Your task to perform on an android device: Search for Mexican restaurants on Maps Image 0: 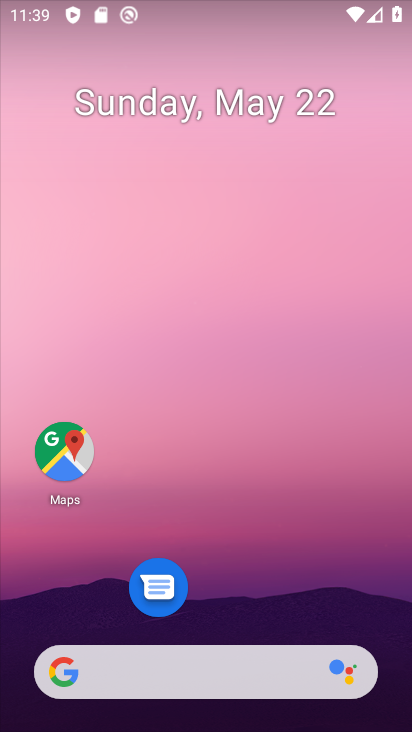
Step 0: drag from (225, 632) to (199, 177)
Your task to perform on an android device: Search for Mexican restaurants on Maps Image 1: 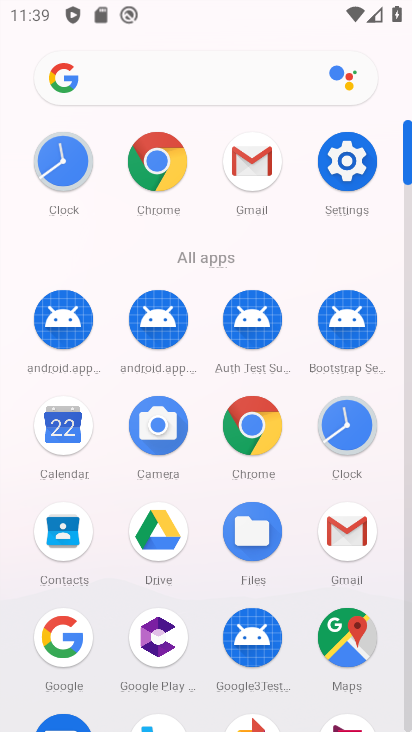
Step 1: click (346, 613)
Your task to perform on an android device: Search for Mexican restaurants on Maps Image 2: 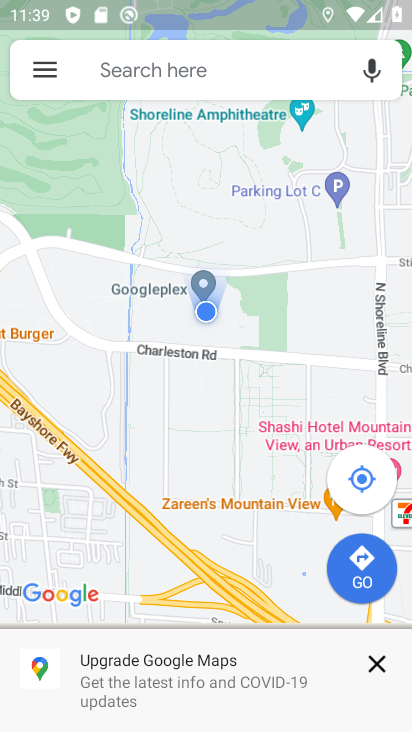
Step 2: click (151, 66)
Your task to perform on an android device: Search for Mexican restaurants on Maps Image 3: 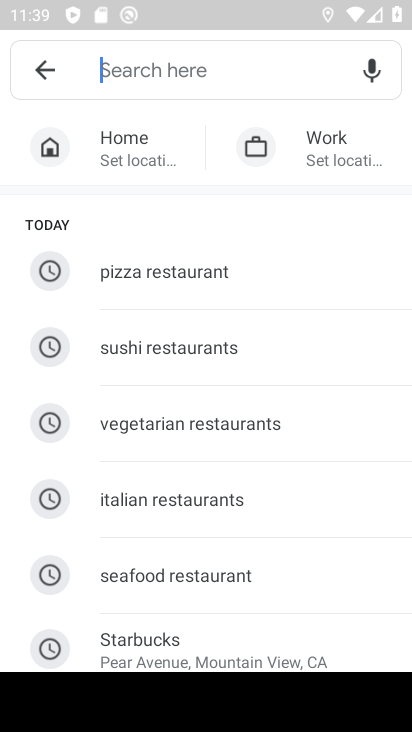
Step 3: drag from (154, 527) to (139, 162)
Your task to perform on an android device: Search for Mexican restaurants on Maps Image 4: 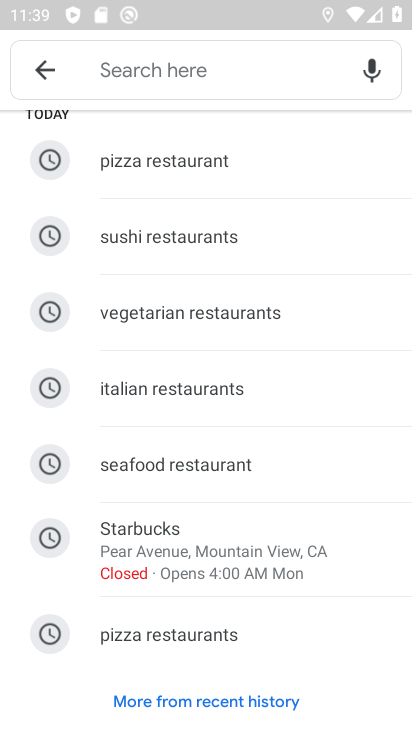
Step 4: drag from (139, 162) to (153, 728)
Your task to perform on an android device: Search for Mexican restaurants on Maps Image 5: 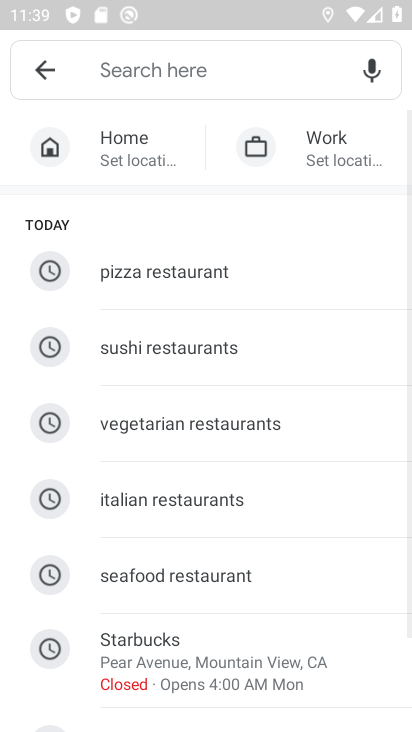
Step 5: click (172, 79)
Your task to perform on an android device: Search for Mexican restaurants on Maps Image 6: 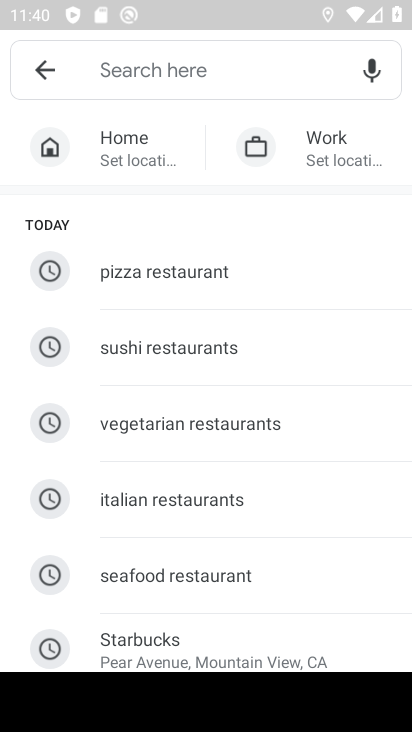
Step 6: type "mexican restuarant"
Your task to perform on an android device: Search for Mexican restaurants on Maps Image 7: 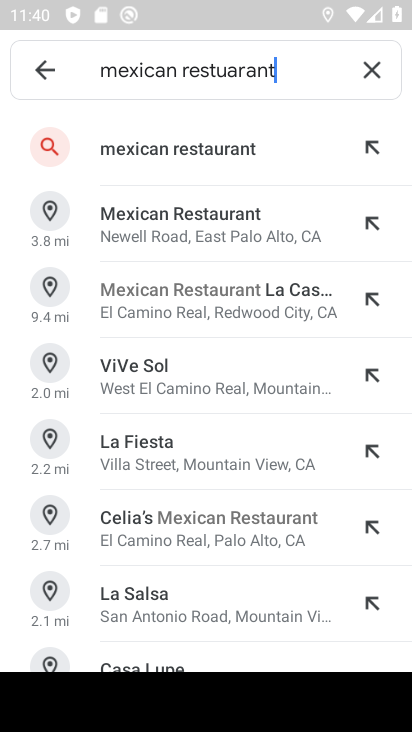
Step 7: click (180, 174)
Your task to perform on an android device: Search for Mexican restaurants on Maps Image 8: 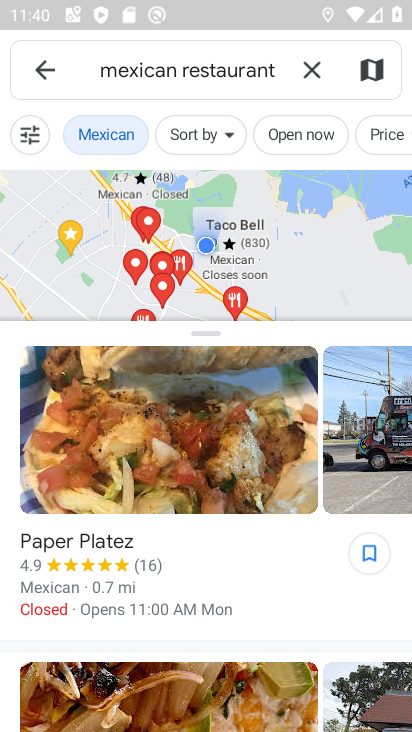
Step 8: task complete